Your task to perform on an android device: Go to location settings Image 0: 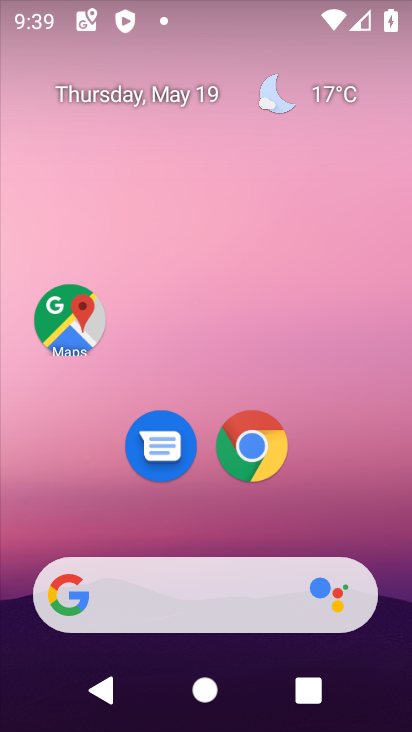
Step 0: drag from (257, 537) to (347, 6)
Your task to perform on an android device: Go to location settings Image 1: 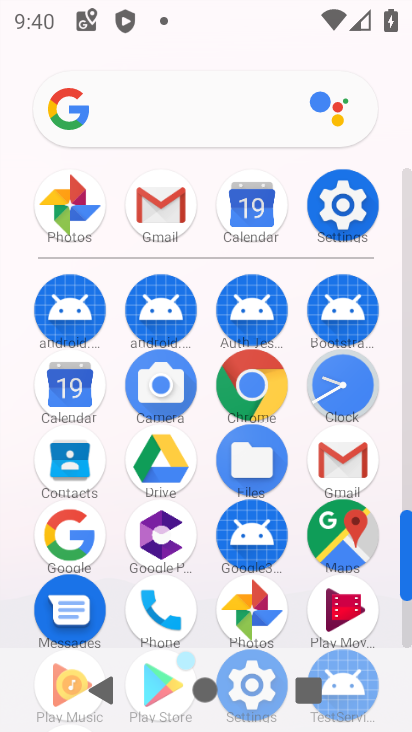
Step 1: click (337, 218)
Your task to perform on an android device: Go to location settings Image 2: 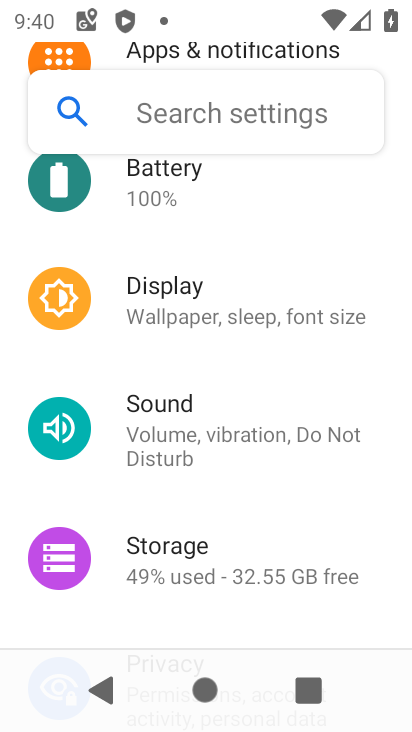
Step 2: drag from (194, 585) to (236, 244)
Your task to perform on an android device: Go to location settings Image 3: 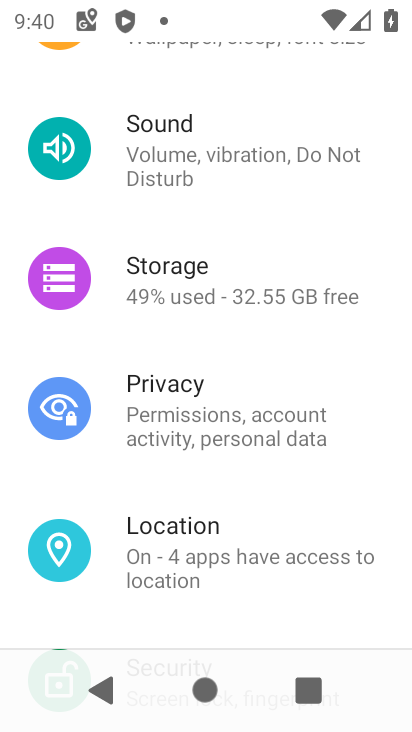
Step 3: click (197, 540)
Your task to perform on an android device: Go to location settings Image 4: 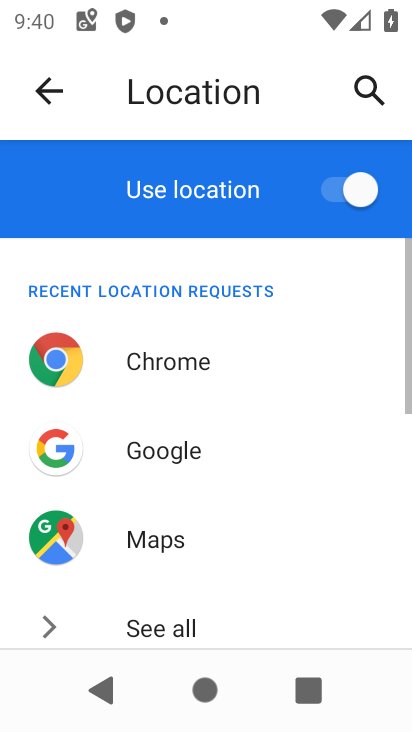
Step 4: task complete